Your task to perform on an android device: turn on javascript in the chrome app Image 0: 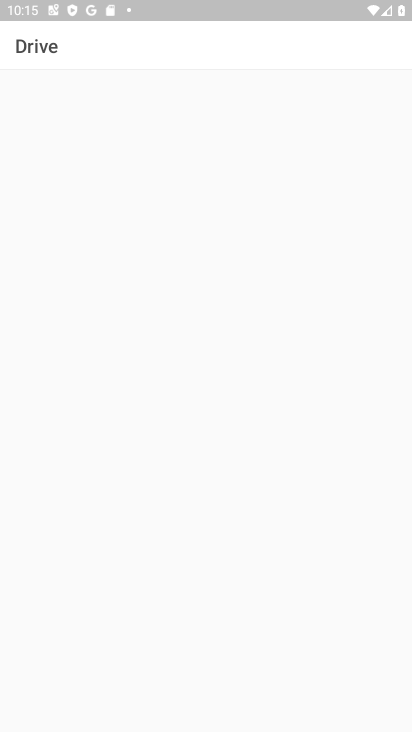
Step 0: press home button
Your task to perform on an android device: turn on javascript in the chrome app Image 1: 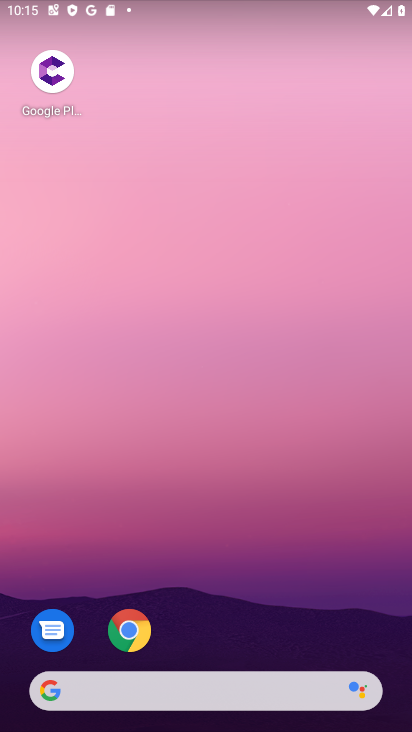
Step 1: click (130, 632)
Your task to perform on an android device: turn on javascript in the chrome app Image 2: 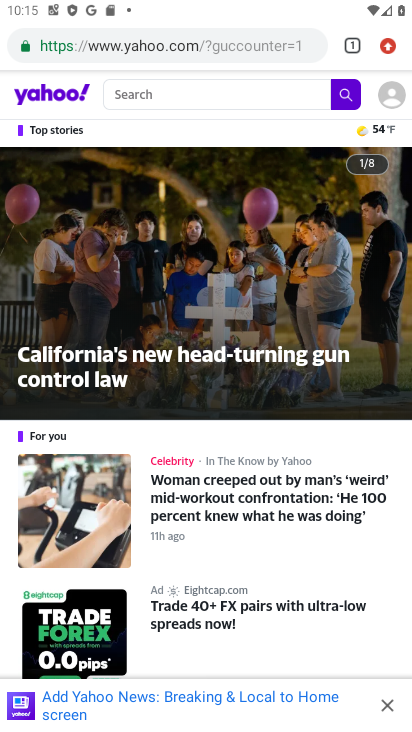
Step 2: click (390, 46)
Your task to perform on an android device: turn on javascript in the chrome app Image 3: 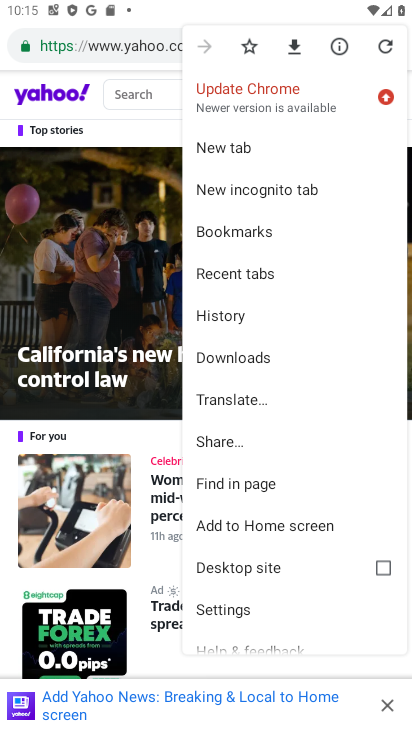
Step 3: click (235, 610)
Your task to perform on an android device: turn on javascript in the chrome app Image 4: 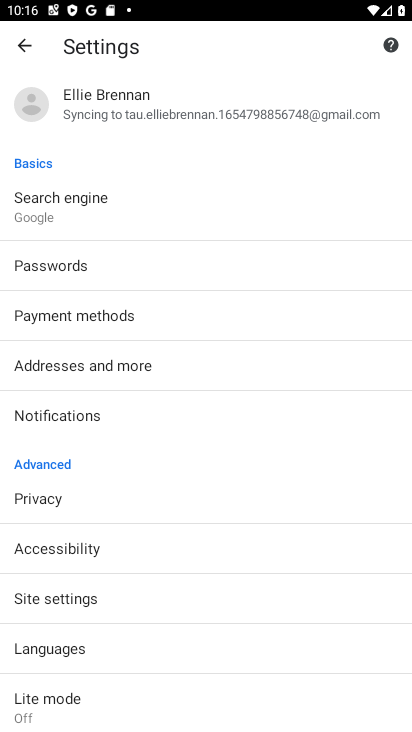
Step 4: drag from (100, 558) to (117, 404)
Your task to perform on an android device: turn on javascript in the chrome app Image 5: 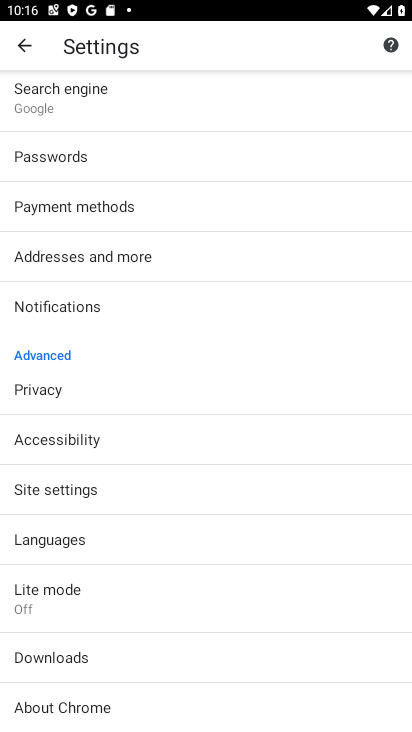
Step 5: click (62, 495)
Your task to perform on an android device: turn on javascript in the chrome app Image 6: 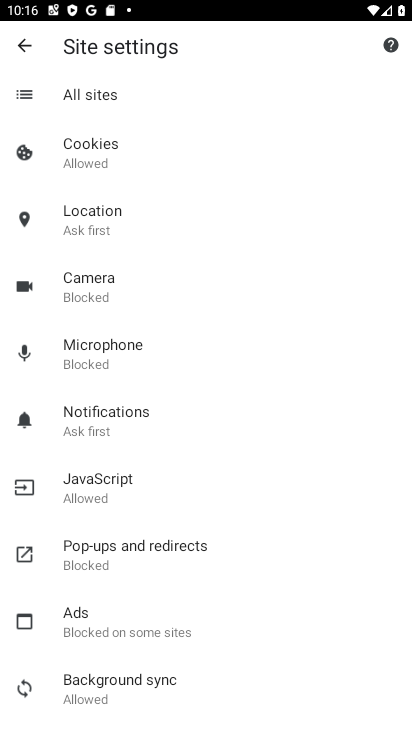
Step 6: click (96, 483)
Your task to perform on an android device: turn on javascript in the chrome app Image 7: 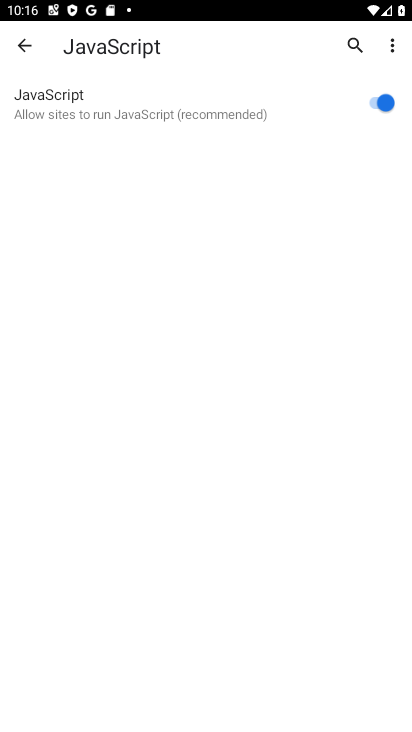
Step 7: task complete